Your task to perform on an android device: delete location history Image 0: 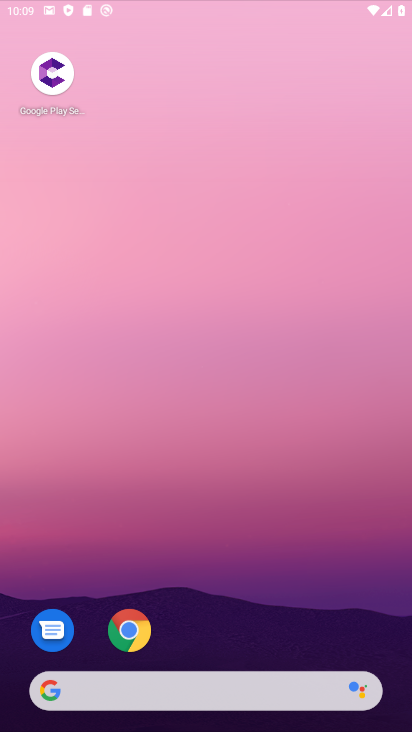
Step 0: click (188, 197)
Your task to perform on an android device: delete location history Image 1: 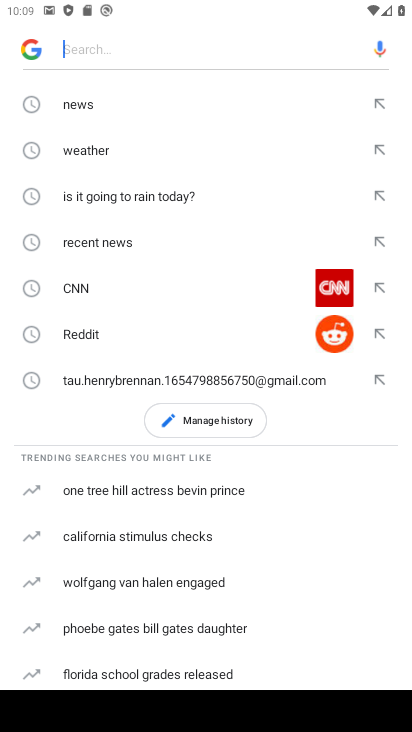
Step 1: press back button
Your task to perform on an android device: delete location history Image 2: 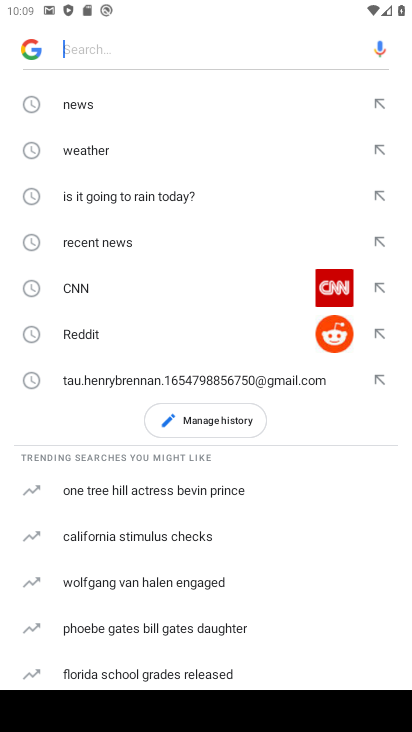
Step 2: press back button
Your task to perform on an android device: delete location history Image 3: 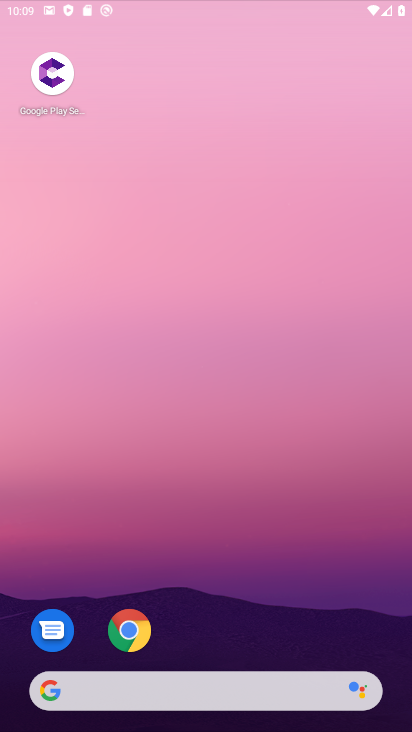
Step 3: press back button
Your task to perform on an android device: delete location history Image 4: 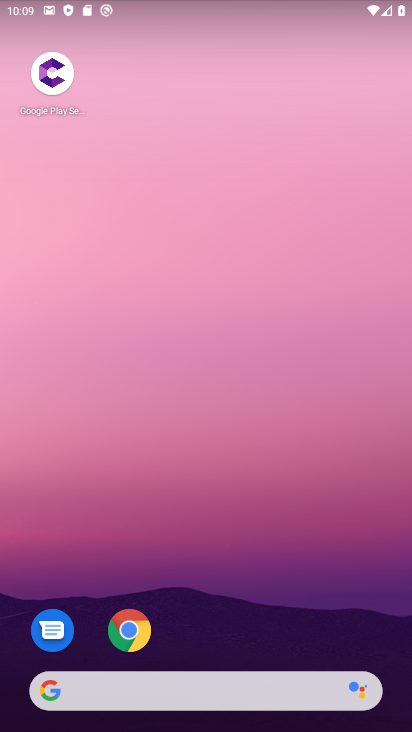
Step 4: drag from (200, 660) to (117, 29)
Your task to perform on an android device: delete location history Image 5: 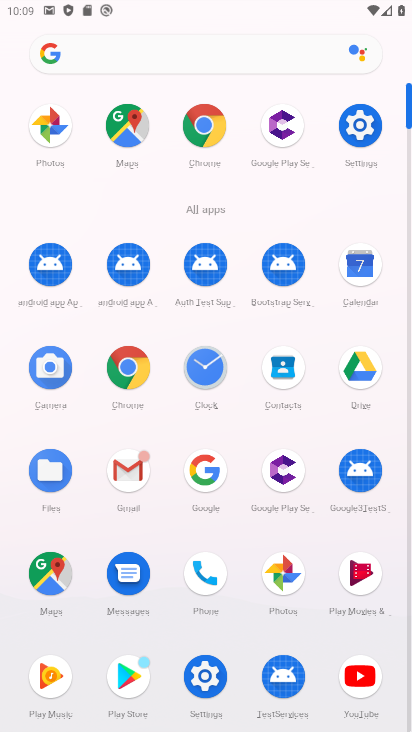
Step 5: click (363, 122)
Your task to perform on an android device: delete location history Image 6: 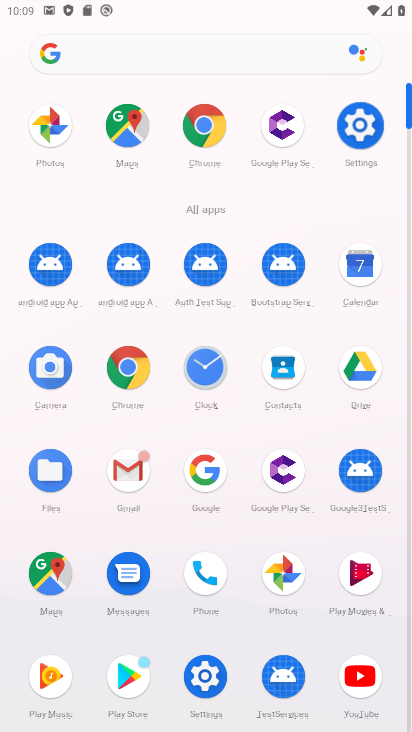
Step 6: click (361, 122)
Your task to perform on an android device: delete location history Image 7: 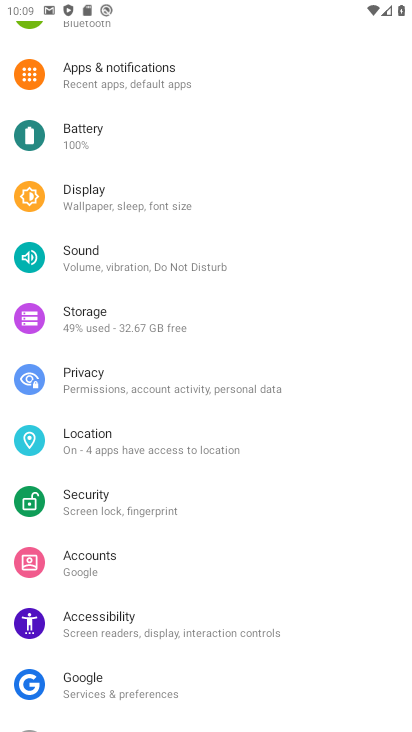
Step 7: click (102, 444)
Your task to perform on an android device: delete location history Image 8: 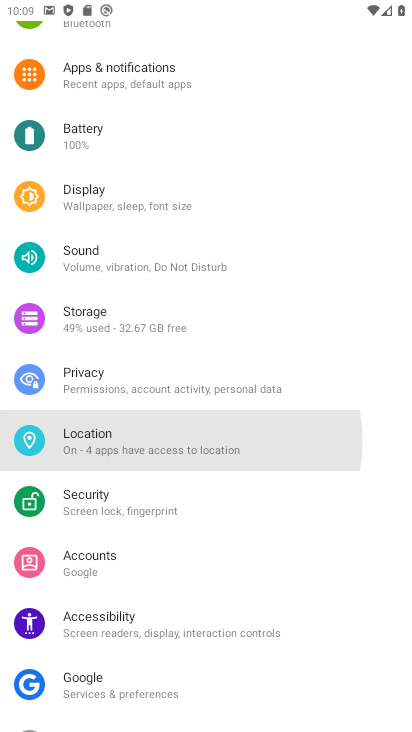
Step 8: click (114, 448)
Your task to perform on an android device: delete location history Image 9: 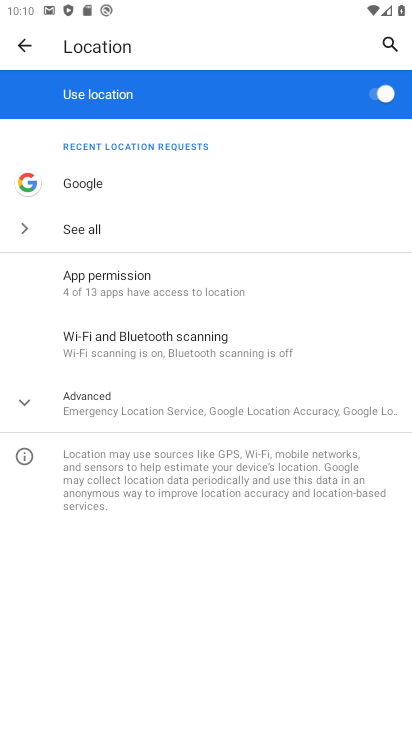
Step 9: click (98, 405)
Your task to perform on an android device: delete location history Image 10: 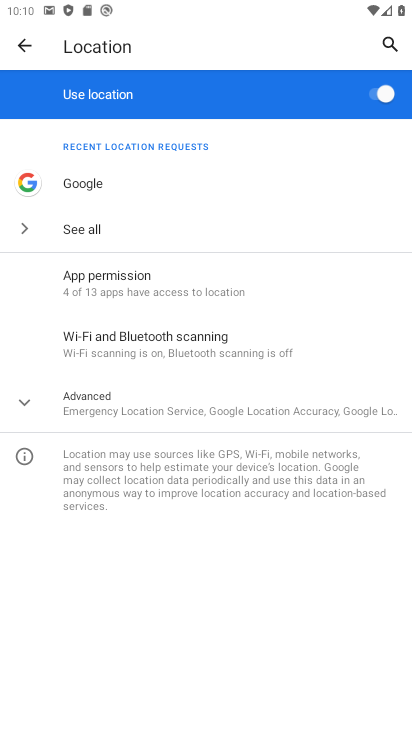
Step 10: click (106, 407)
Your task to perform on an android device: delete location history Image 11: 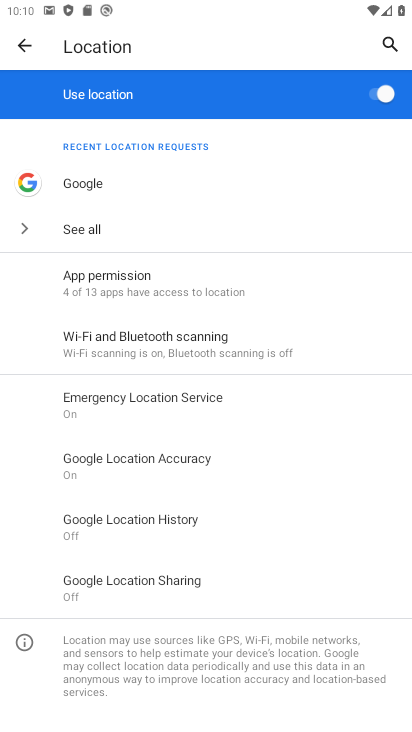
Step 11: click (107, 408)
Your task to perform on an android device: delete location history Image 12: 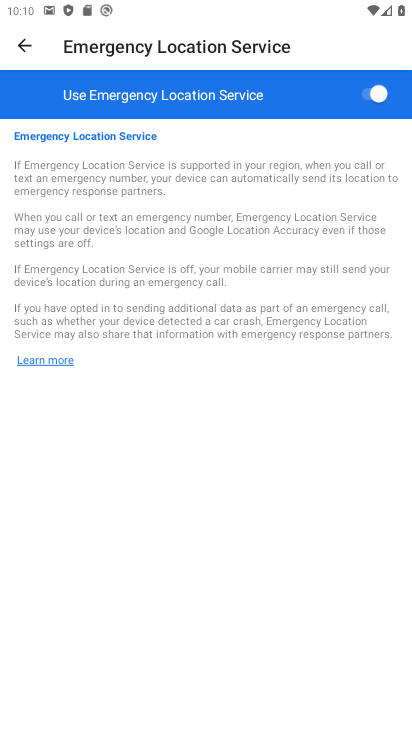
Step 12: click (13, 34)
Your task to perform on an android device: delete location history Image 13: 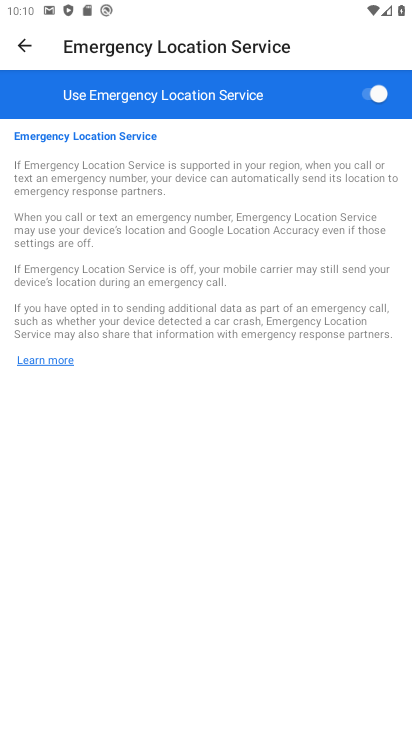
Step 13: click (19, 38)
Your task to perform on an android device: delete location history Image 14: 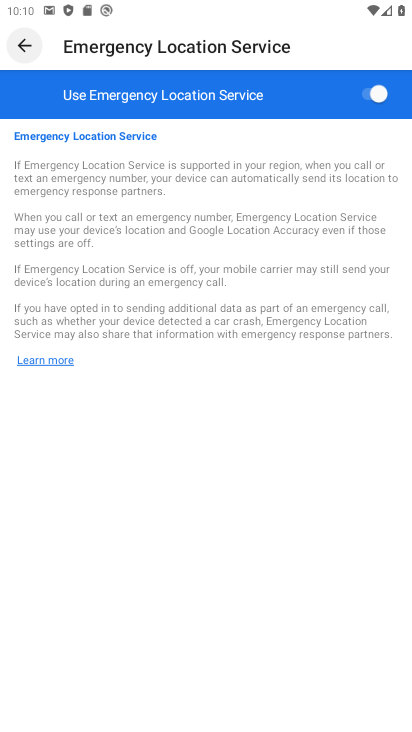
Step 14: click (26, 40)
Your task to perform on an android device: delete location history Image 15: 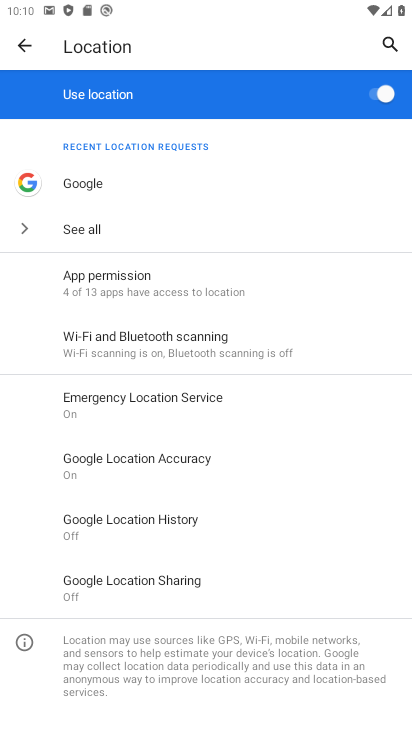
Step 15: click (146, 513)
Your task to perform on an android device: delete location history Image 16: 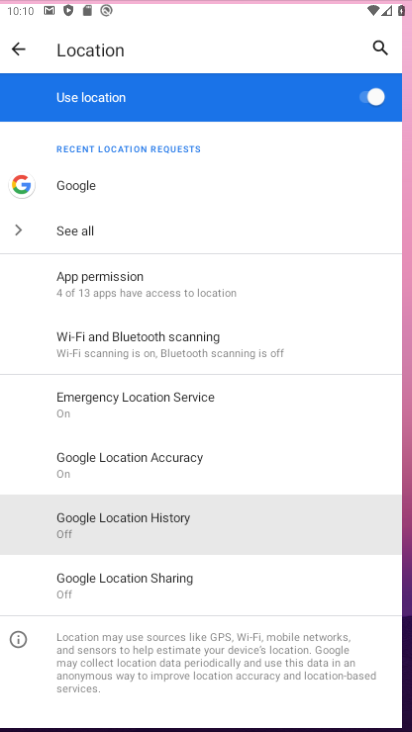
Step 16: click (146, 512)
Your task to perform on an android device: delete location history Image 17: 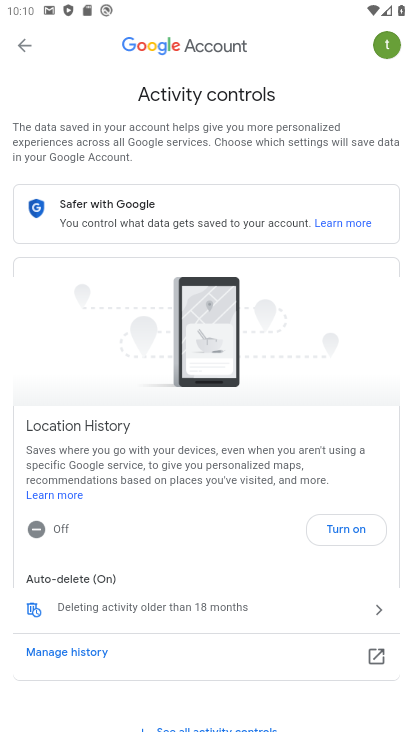
Step 17: drag from (174, 658) to (157, 106)
Your task to perform on an android device: delete location history Image 18: 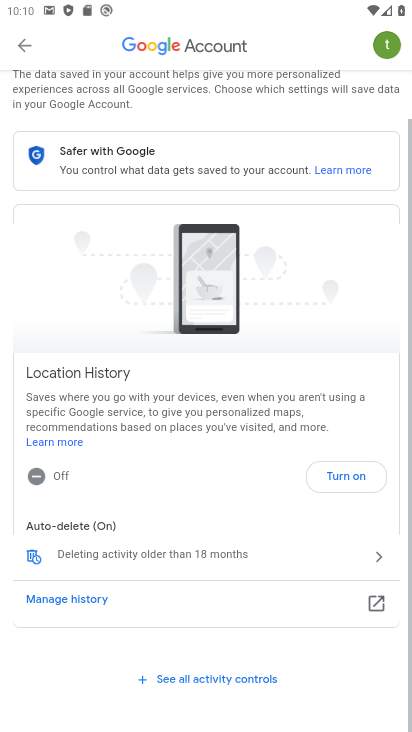
Step 18: drag from (241, 708) to (213, 420)
Your task to perform on an android device: delete location history Image 19: 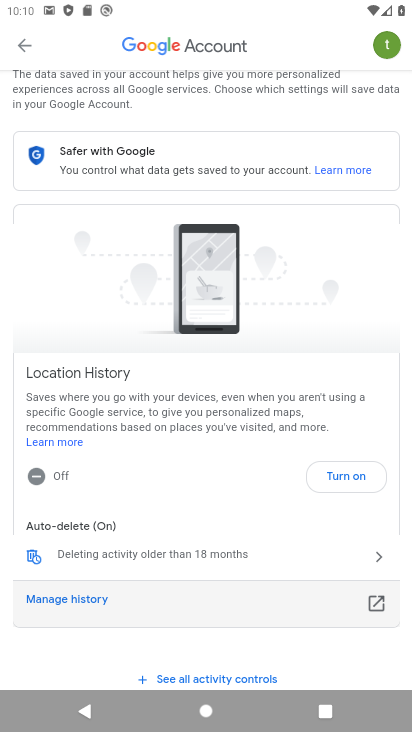
Step 19: click (95, 598)
Your task to perform on an android device: delete location history Image 20: 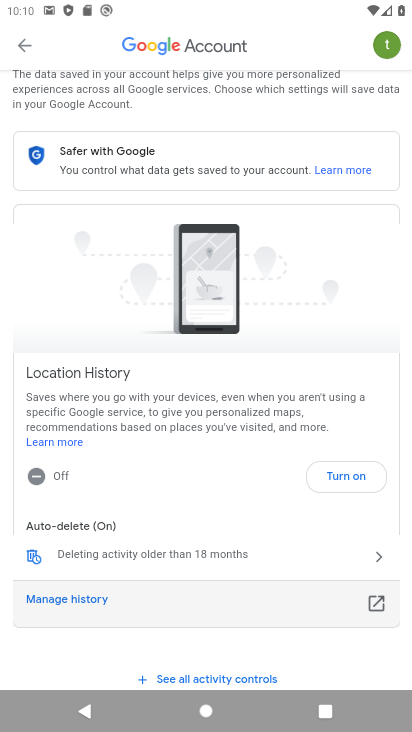
Step 20: click (95, 604)
Your task to perform on an android device: delete location history Image 21: 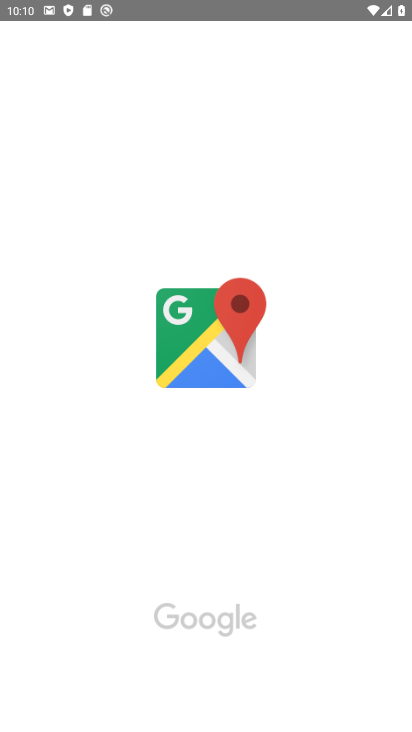
Step 21: click (384, 599)
Your task to perform on an android device: delete location history Image 22: 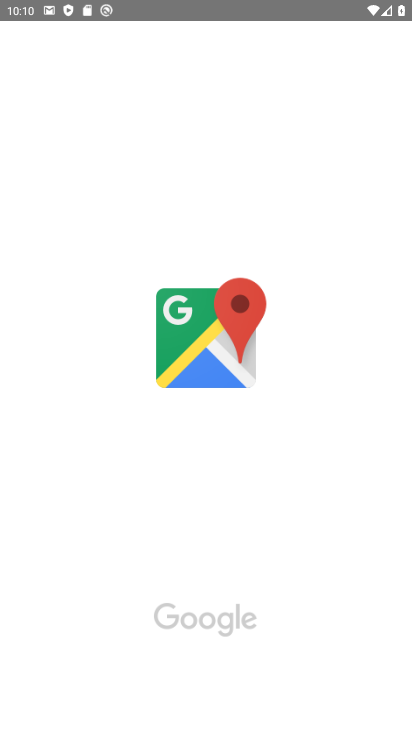
Step 22: click (384, 606)
Your task to perform on an android device: delete location history Image 23: 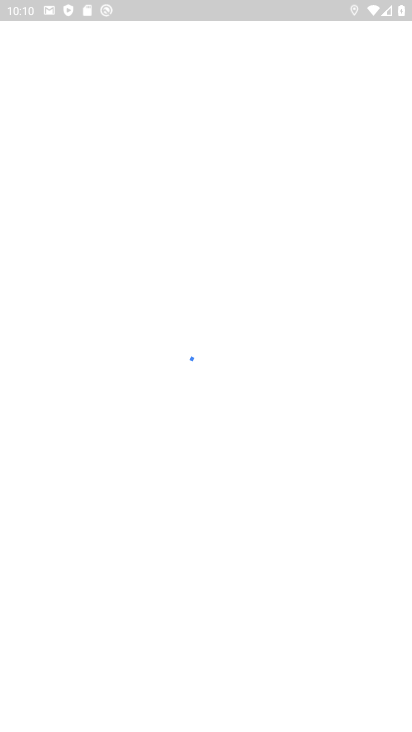
Step 23: task complete